Your task to perform on an android device: turn off location history Image 0: 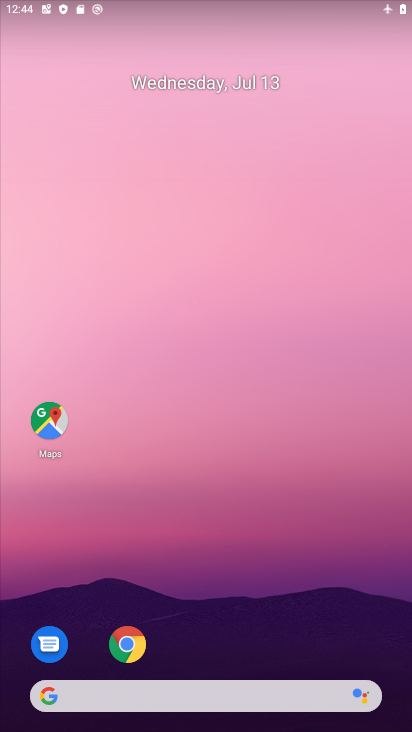
Step 0: drag from (323, 582) to (252, 151)
Your task to perform on an android device: turn off location history Image 1: 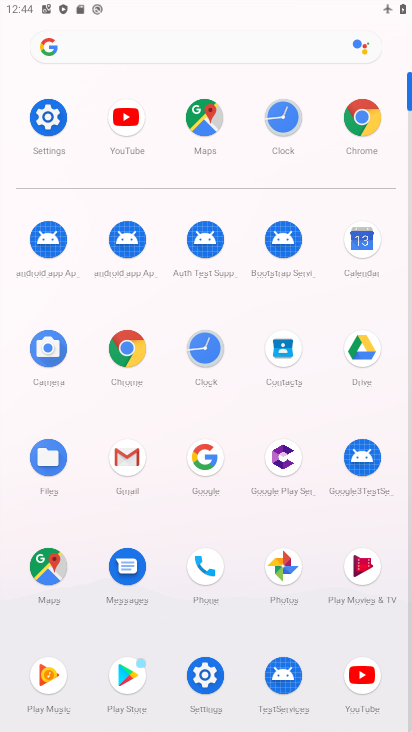
Step 1: click (53, 117)
Your task to perform on an android device: turn off location history Image 2: 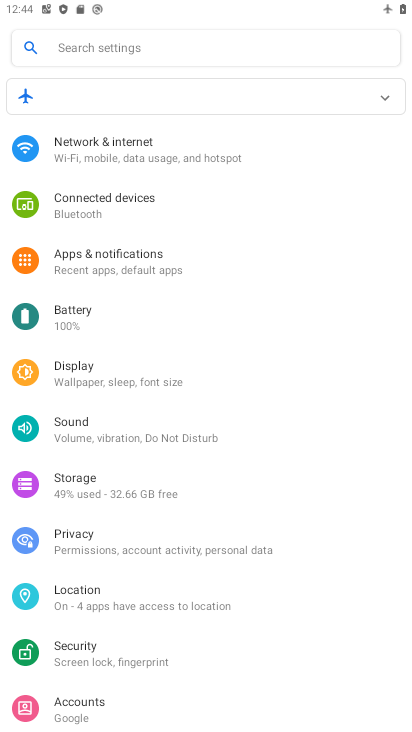
Step 2: click (155, 601)
Your task to perform on an android device: turn off location history Image 3: 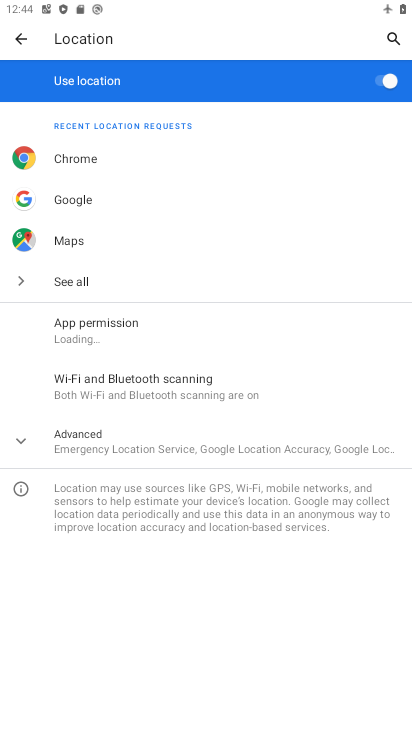
Step 3: click (148, 438)
Your task to perform on an android device: turn off location history Image 4: 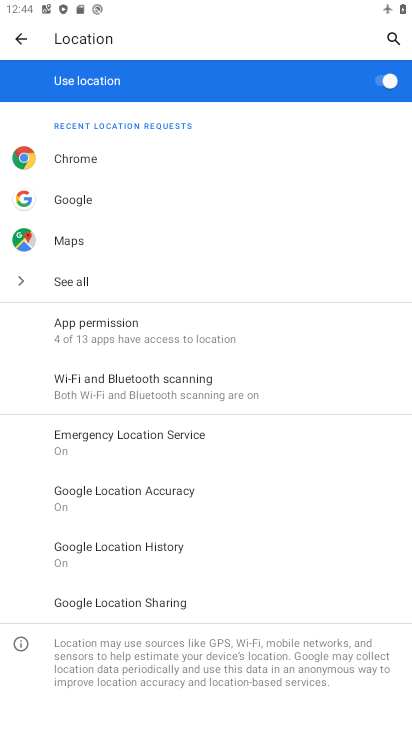
Step 4: click (120, 550)
Your task to perform on an android device: turn off location history Image 5: 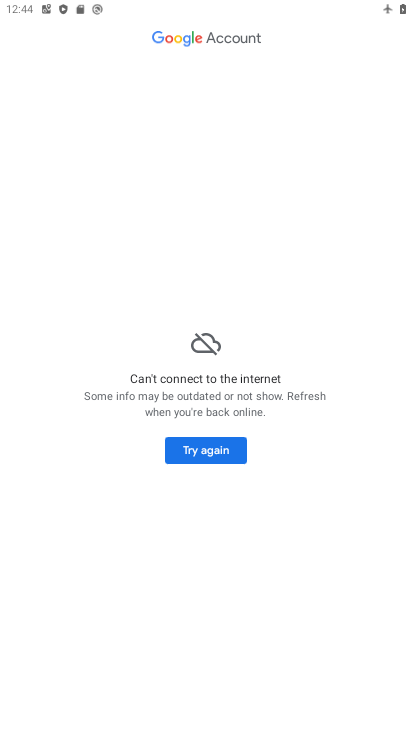
Step 5: task complete